Your task to perform on an android device: empty trash in google photos Image 0: 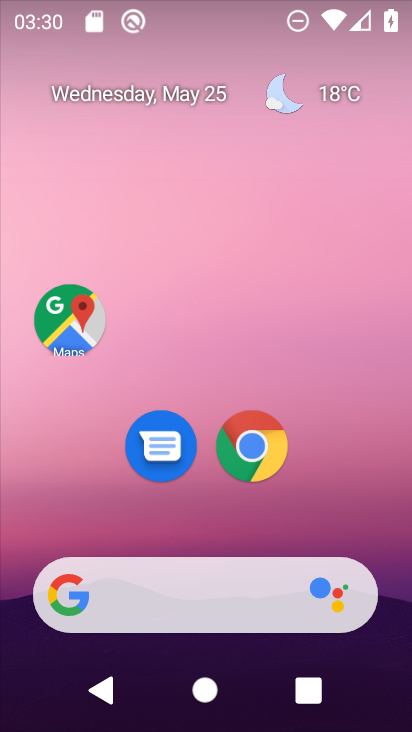
Step 0: drag from (224, 608) to (178, 119)
Your task to perform on an android device: empty trash in google photos Image 1: 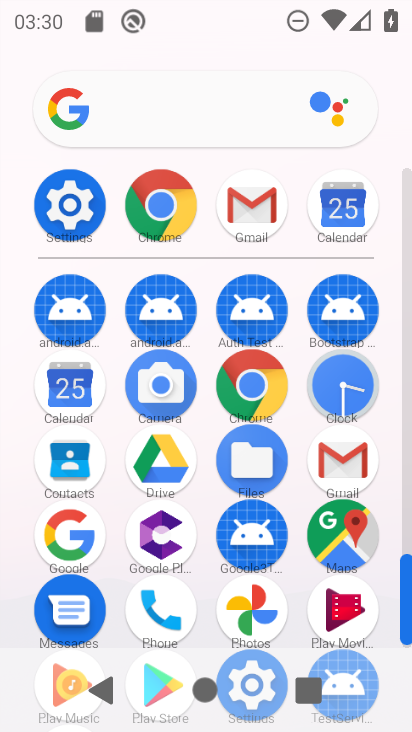
Step 1: click (268, 610)
Your task to perform on an android device: empty trash in google photos Image 2: 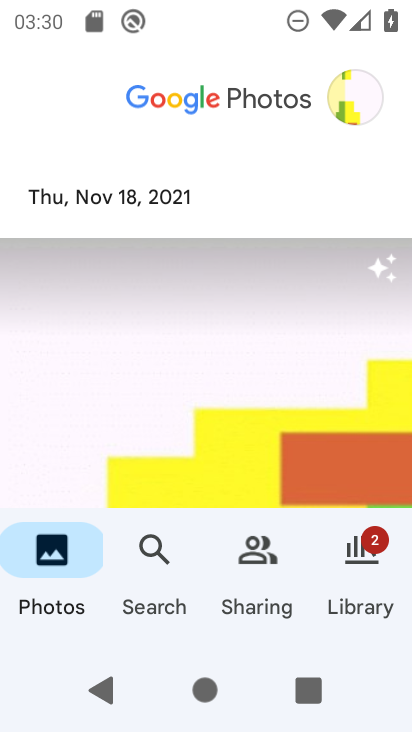
Step 2: click (334, 563)
Your task to perform on an android device: empty trash in google photos Image 3: 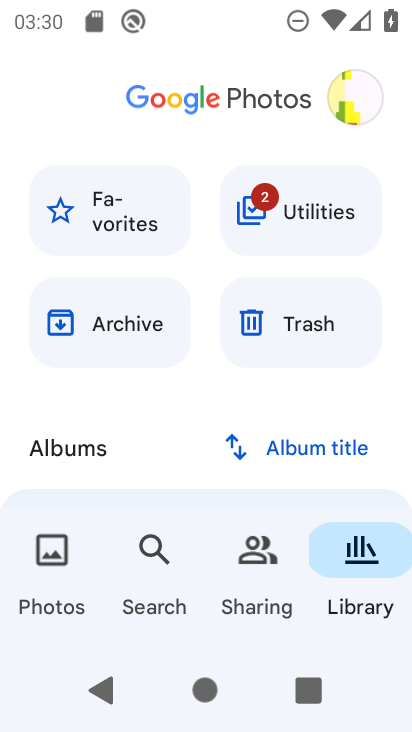
Step 3: click (297, 344)
Your task to perform on an android device: empty trash in google photos Image 4: 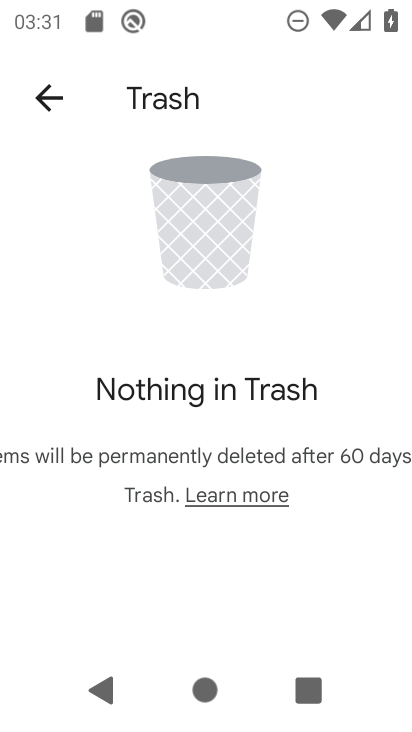
Step 4: task complete